Your task to perform on an android device: Open settings on Google Maps Image 0: 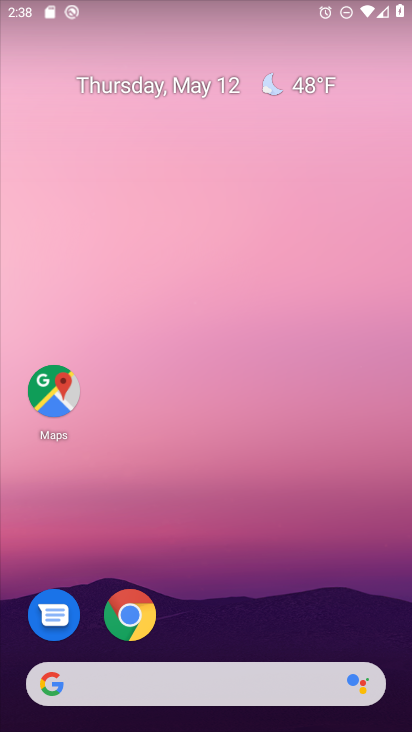
Step 0: drag from (255, 669) to (313, 19)
Your task to perform on an android device: Open settings on Google Maps Image 1: 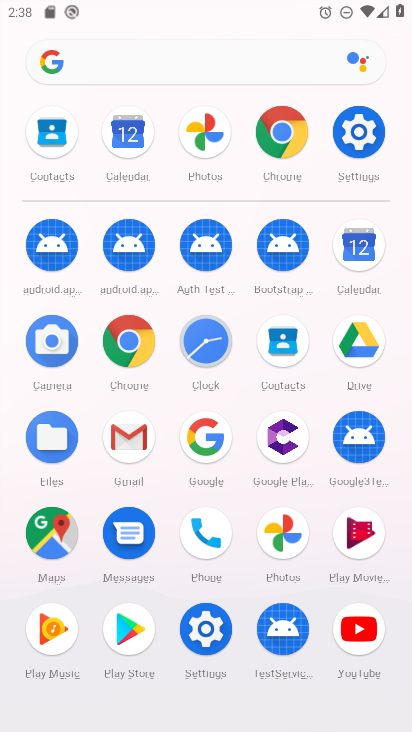
Step 1: click (45, 531)
Your task to perform on an android device: Open settings on Google Maps Image 2: 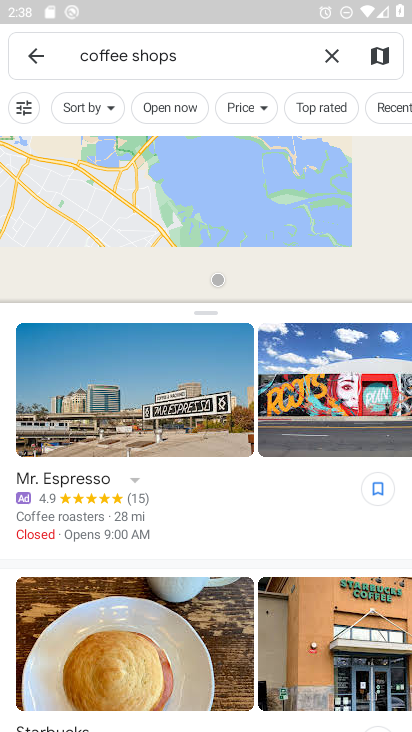
Step 2: press back button
Your task to perform on an android device: Open settings on Google Maps Image 3: 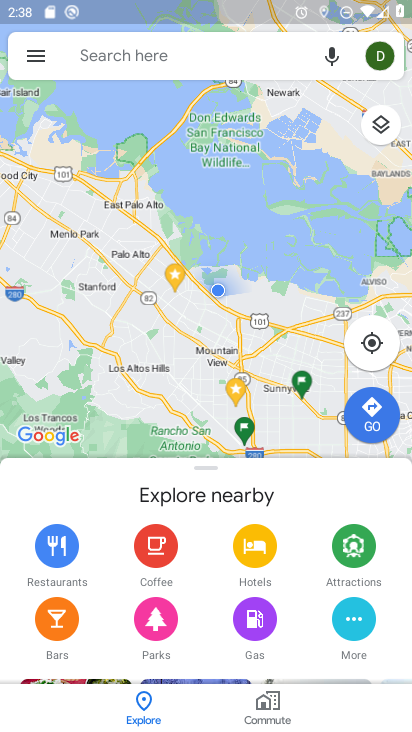
Step 3: click (27, 50)
Your task to perform on an android device: Open settings on Google Maps Image 4: 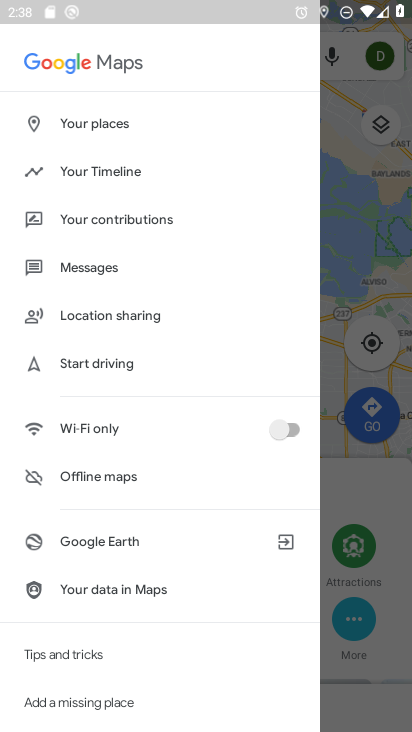
Step 4: click (390, 176)
Your task to perform on an android device: Open settings on Google Maps Image 5: 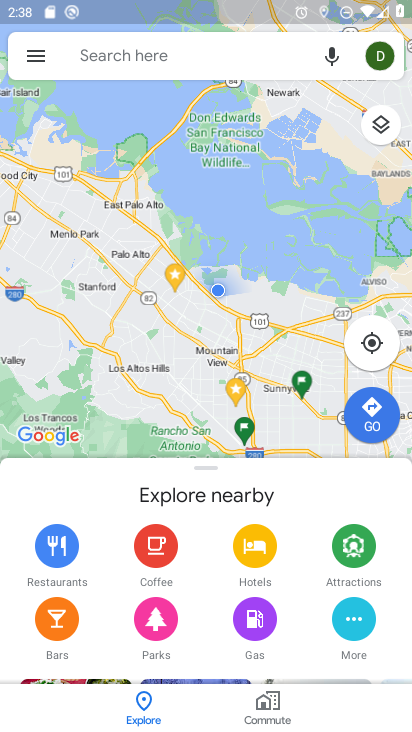
Step 5: click (379, 54)
Your task to perform on an android device: Open settings on Google Maps Image 6: 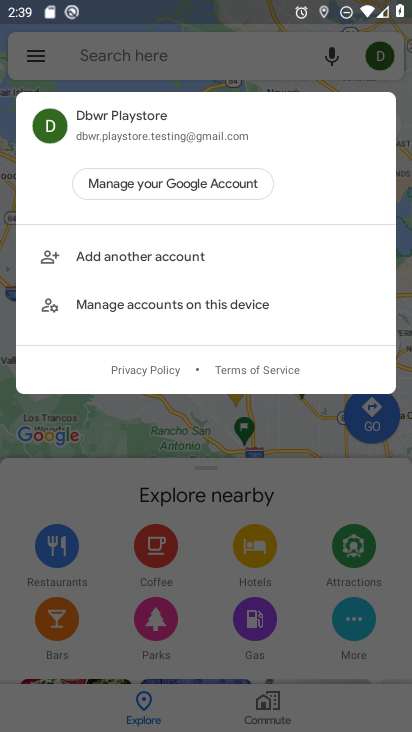
Step 6: click (322, 443)
Your task to perform on an android device: Open settings on Google Maps Image 7: 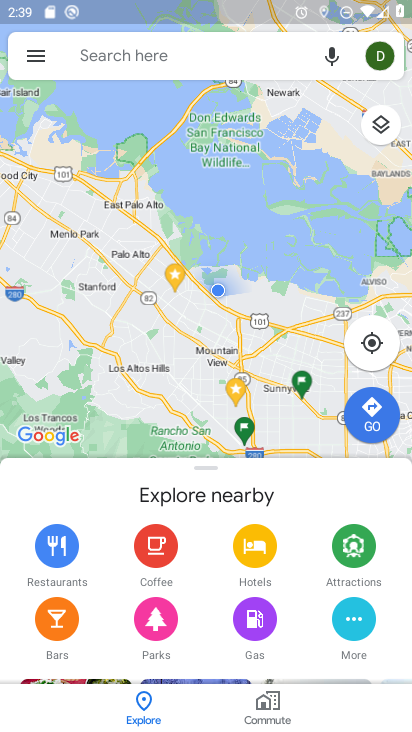
Step 7: click (29, 59)
Your task to perform on an android device: Open settings on Google Maps Image 8: 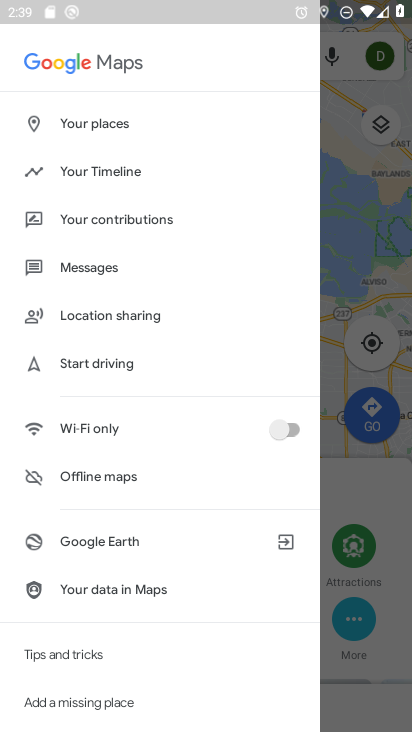
Step 8: click (132, 174)
Your task to perform on an android device: Open settings on Google Maps Image 9: 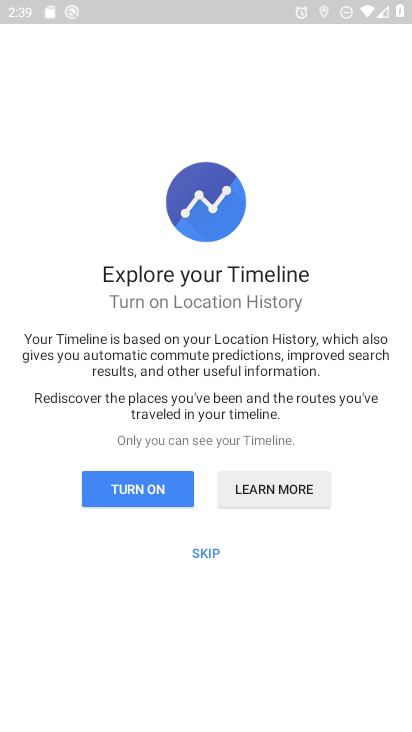
Step 9: click (202, 547)
Your task to perform on an android device: Open settings on Google Maps Image 10: 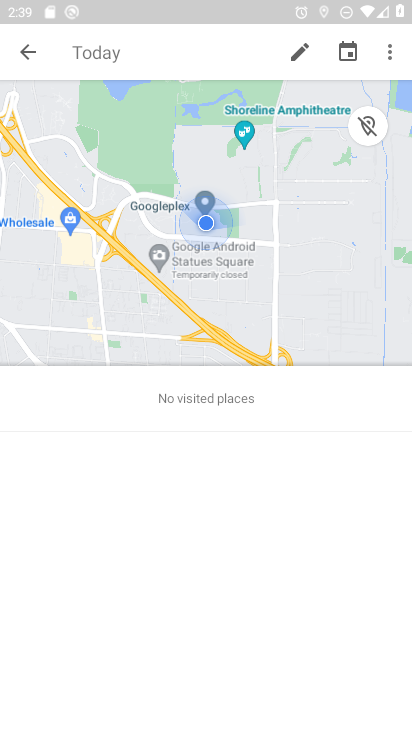
Step 10: click (390, 50)
Your task to perform on an android device: Open settings on Google Maps Image 11: 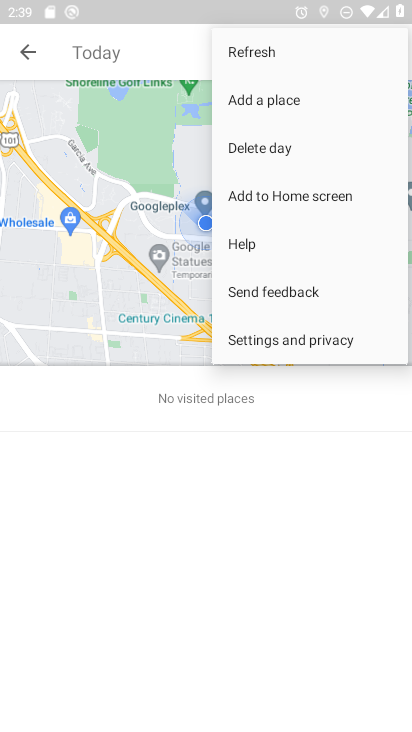
Step 11: click (267, 332)
Your task to perform on an android device: Open settings on Google Maps Image 12: 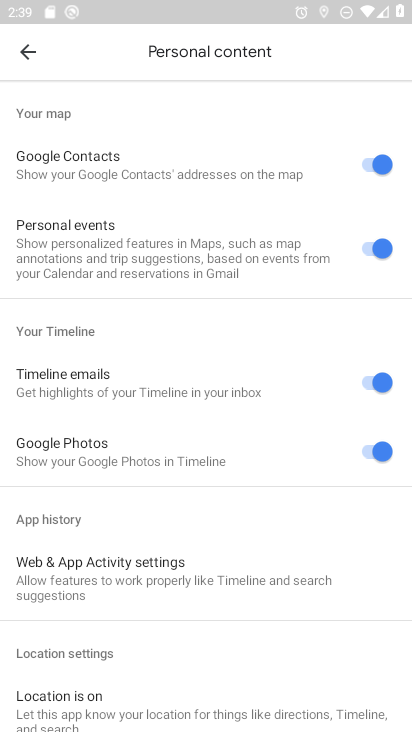
Step 12: task complete